Your task to perform on an android device: Open a new Chrome incognito window Image 0: 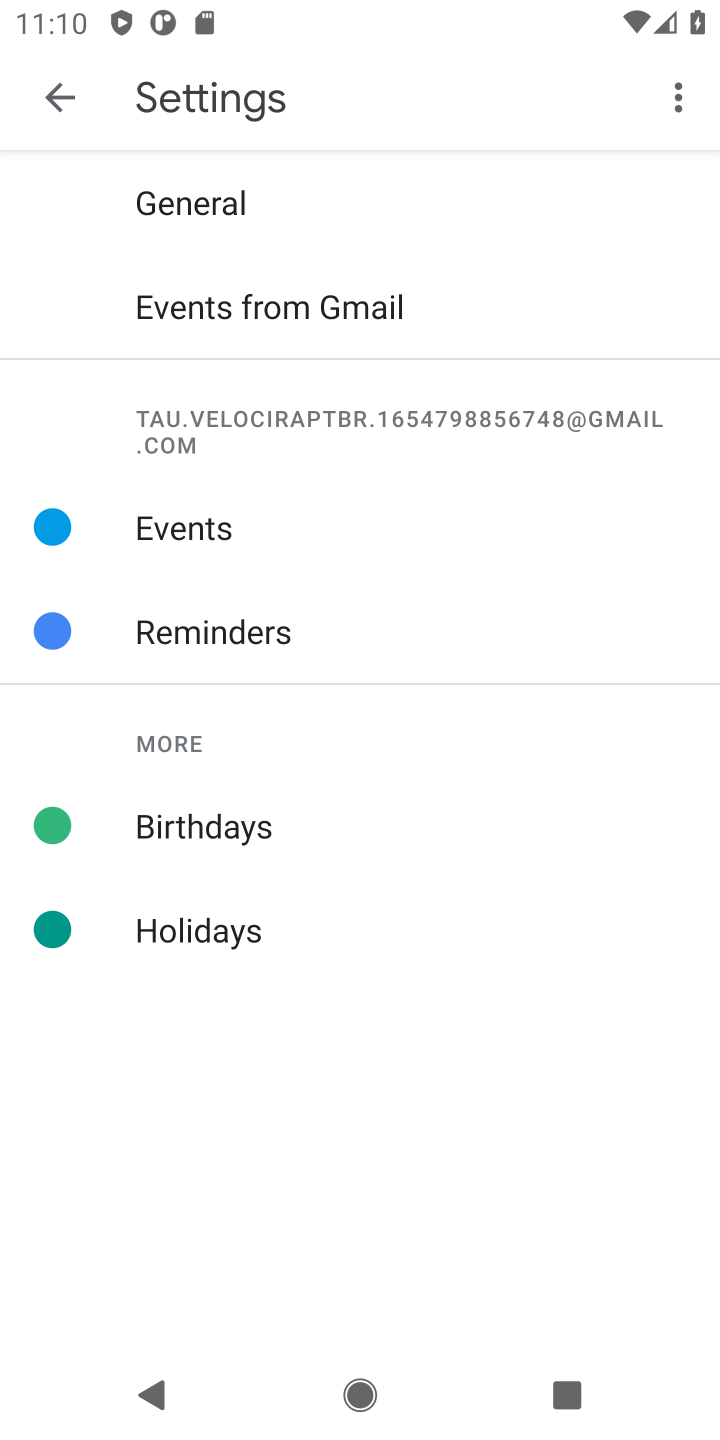
Step 0: task complete